Your task to perform on an android device: What is the recent news? Image 0: 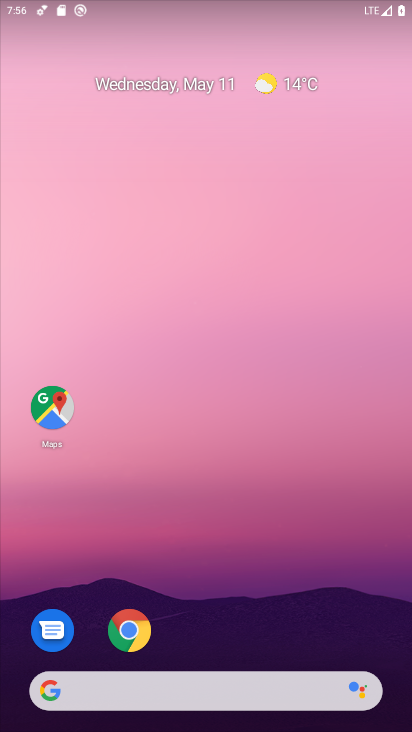
Step 0: click (214, 705)
Your task to perform on an android device: What is the recent news? Image 1: 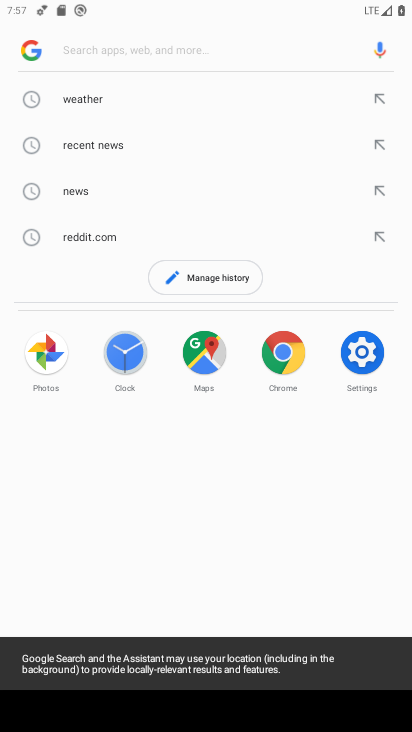
Step 1: click (75, 199)
Your task to perform on an android device: What is the recent news? Image 2: 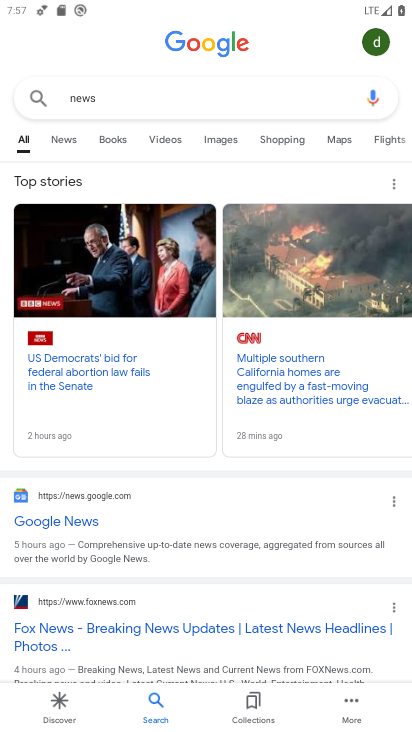
Step 2: task complete